Your task to perform on an android device: Search for Mexican restaurants on Maps Image 0: 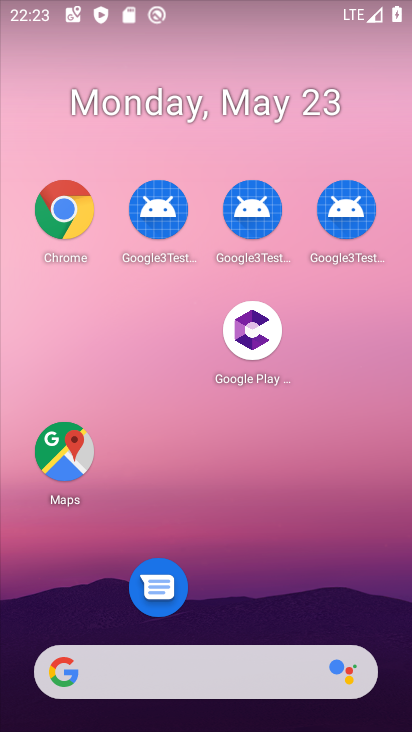
Step 0: click (59, 474)
Your task to perform on an android device: Search for Mexican restaurants on Maps Image 1: 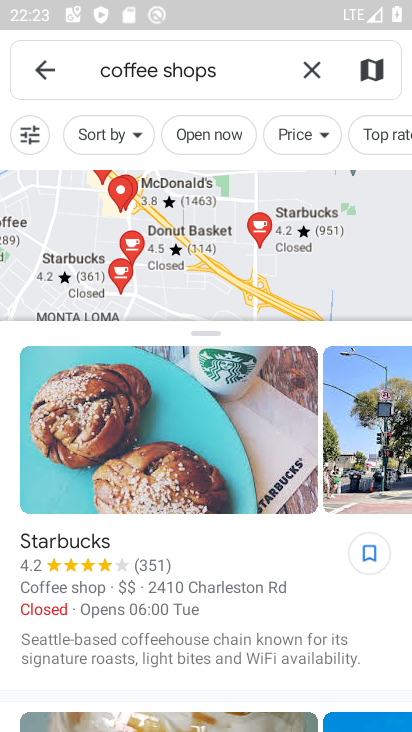
Step 1: click (309, 86)
Your task to perform on an android device: Search for Mexican restaurants on Maps Image 2: 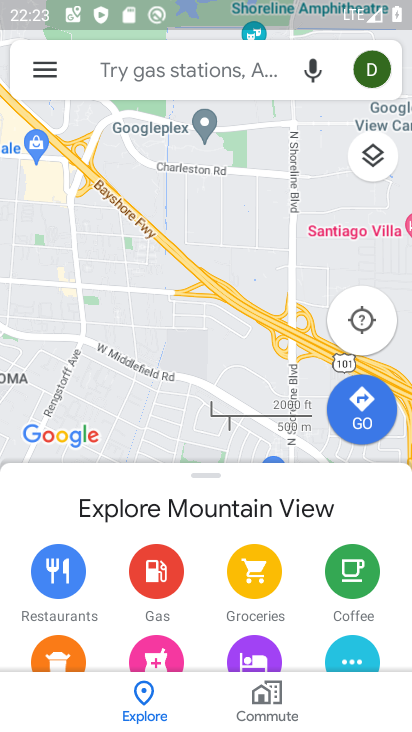
Step 2: click (196, 67)
Your task to perform on an android device: Search for Mexican restaurants on Maps Image 3: 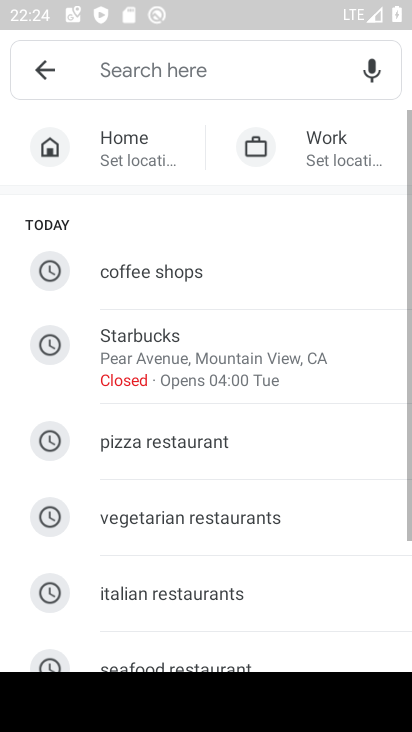
Step 3: drag from (162, 586) to (131, 172)
Your task to perform on an android device: Search for Mexican restaurants on Maps Image 4: 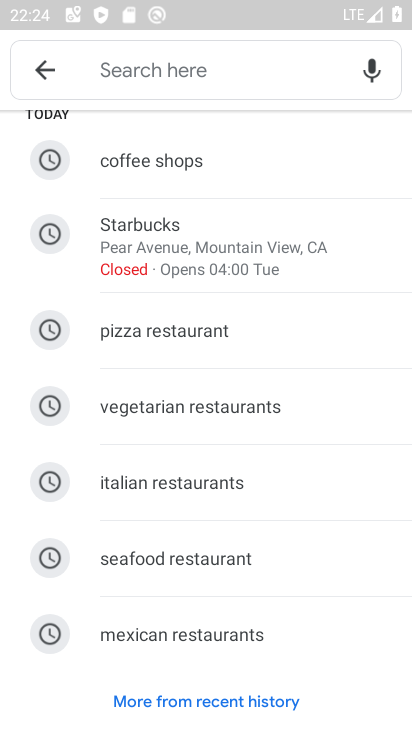
Step 4: click (210, 615)
Your task to perform on an android device: Search for Mexican restaurants on Maps Image 5: 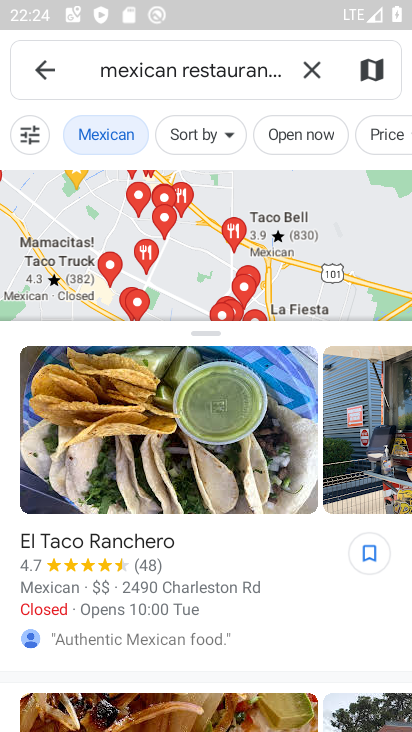
Step 5: task complete